Your task to perform on an android device: change text size in settings app Image 0: 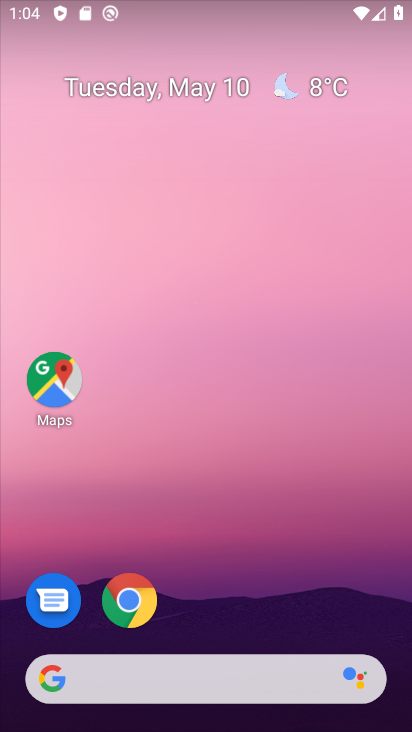
Step 0: drag from (258, 468) to (273, 123)
Your task to perform on an android device: change text size in settings app Image 1: 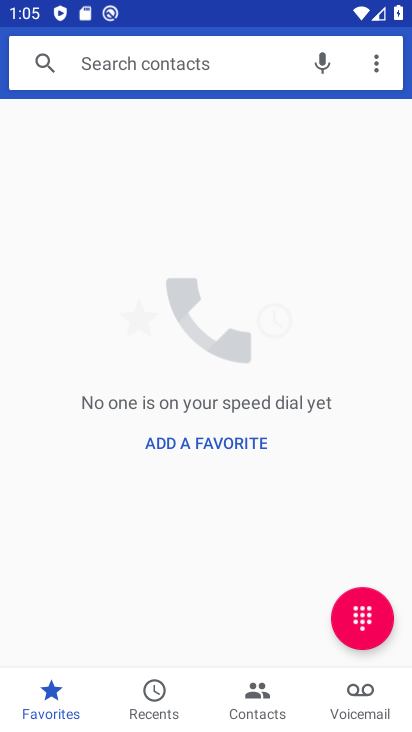
Step 1: press home button
Your task to perform on an android device: change text size in settings app Image 2: 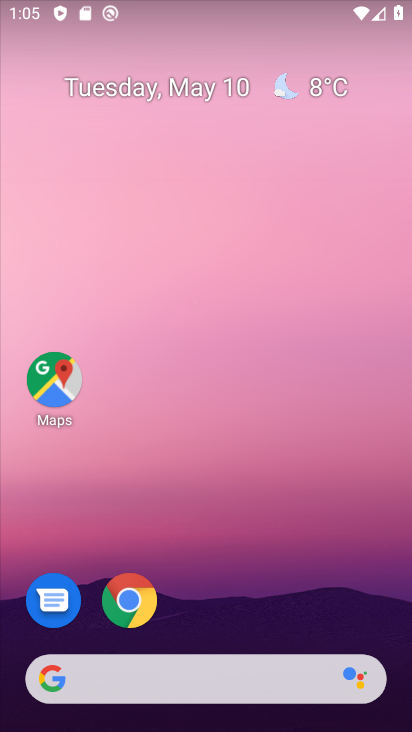
Step 2: drag from (218, 626) to (225, 144)
Your task to perform on an android device: change text size in settings app Image 3: 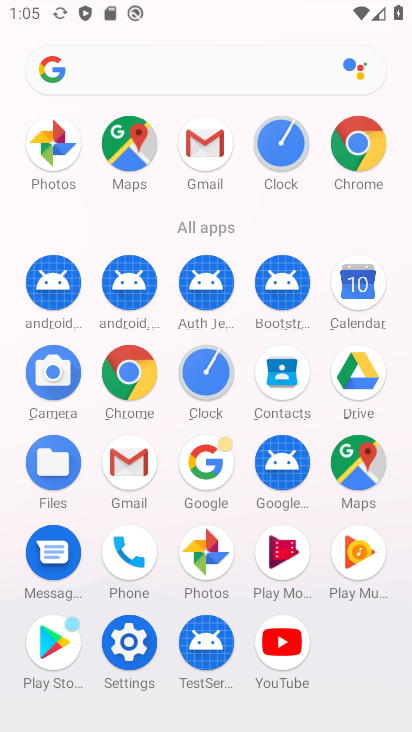
Step 3: click (125, 635)
Your task to perform on an android device: change text size in settings app Image 4: 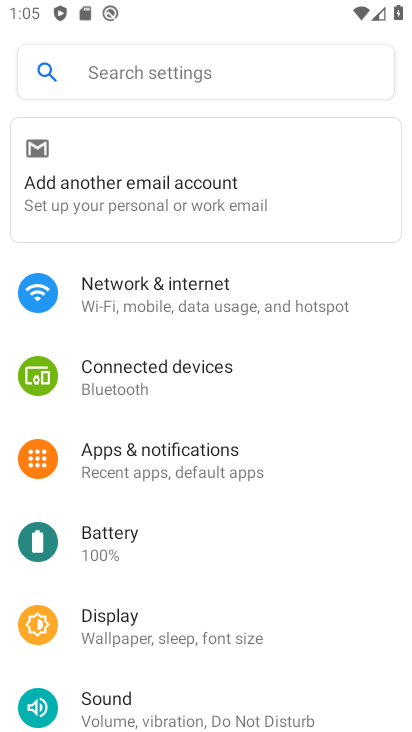
Step 4: click (178, 626)
Your task to perform on an android device: change text size in settings app Image 5: 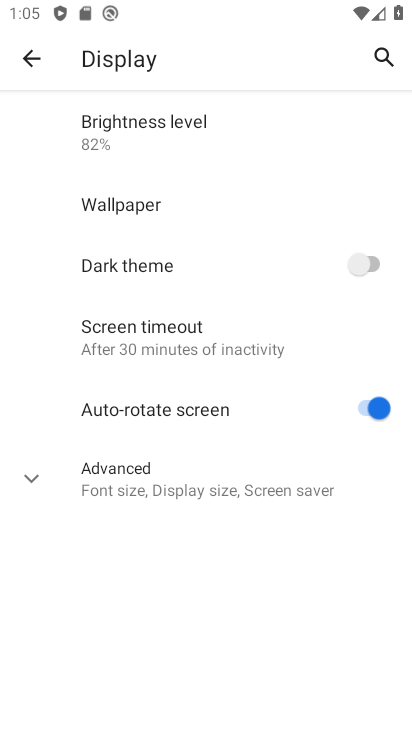
Step 5: click (65, 473)
Your task to perform on an android device: change text size in settings app Image 6: 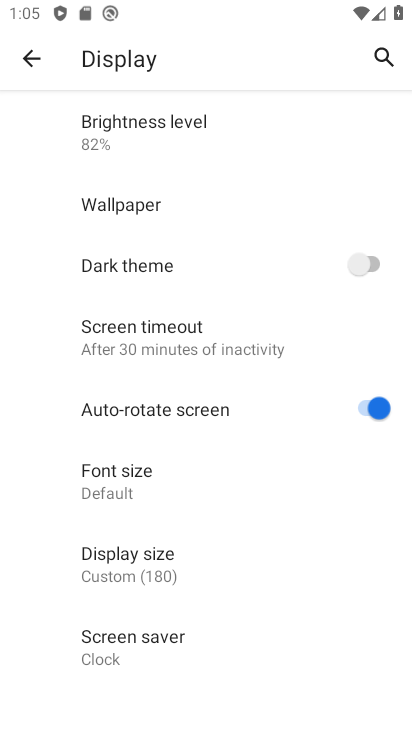
Step 6: click (147, 480)
Your task to perform on an android device: change text size in settings app Image 7: 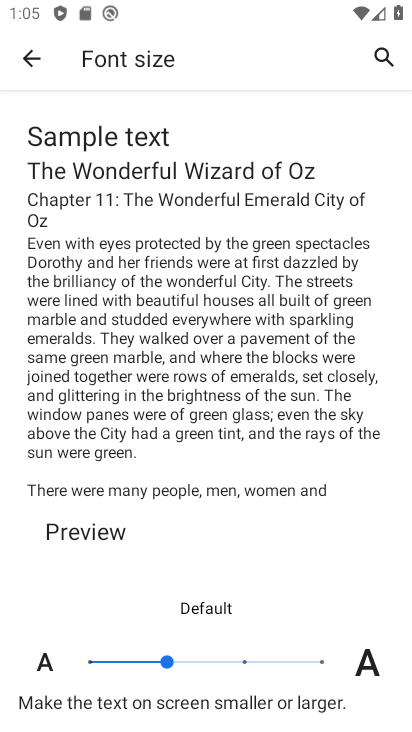
Step 7: click (90, 661)
Your task to perform on an android device: change text size in settings app Image 8: 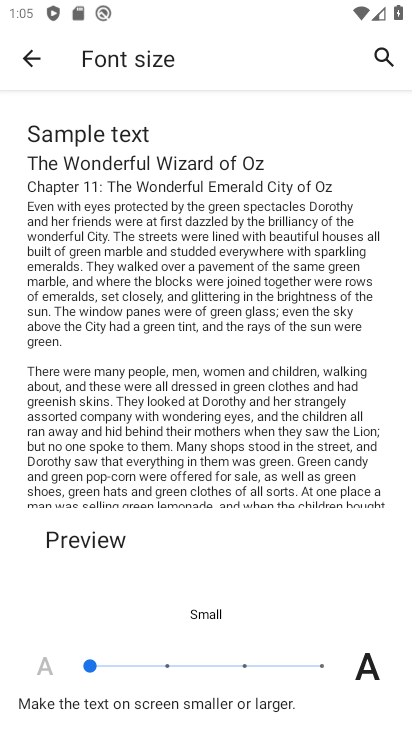
Step 8: task complete